Your task to perform on an android device: turn pop-ups on in chrome Image 0: 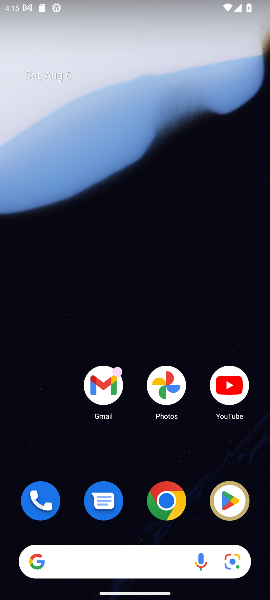
Step 0: click (174, 499)
Your task to perform on an android device: turn pop-ups on in chrome Image 1: 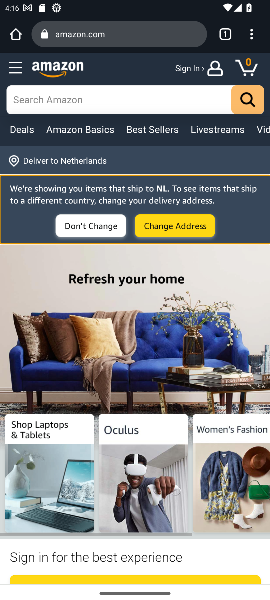
Step 1: click (256, 33)
Your task to perform on an android device: turn pop-ups on in chrome Image 2: 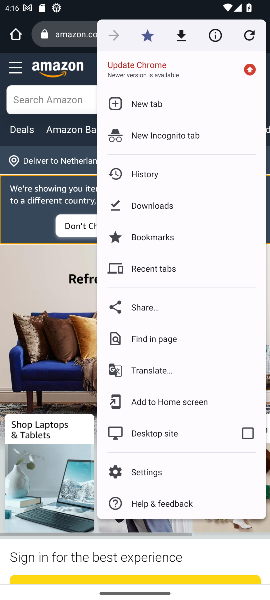
Step 2: click (138, 473)
Your task to perform on an android device: turn pop-ups on in chrome Image 3: 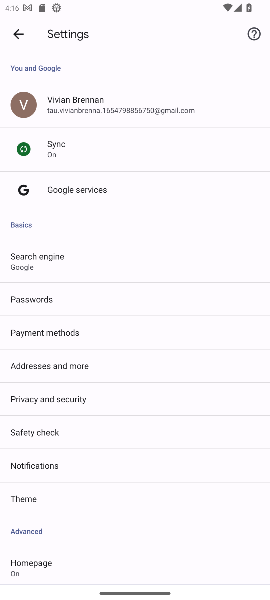
Step 3: drag from (194, 503) to (199, 2)
Your task to perform on an android device: turn pop-ups on in chrome Image 4: 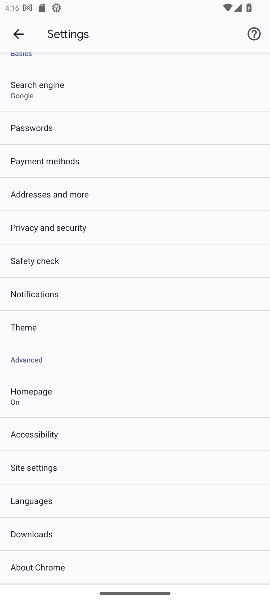
Step 4: click (53, 464)
Your task to perform on an android device: turn pop-ups on in chrome Image 5: 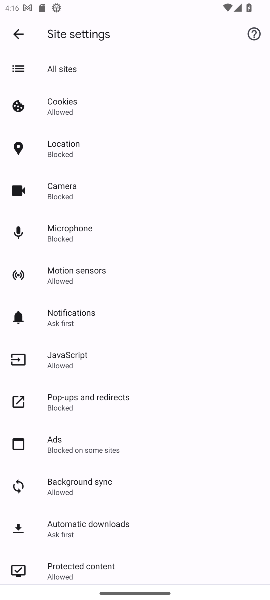
Step 5: click (89, 406)
Your task to perform on an android device: turn pop-ups on in chrome Image 6: 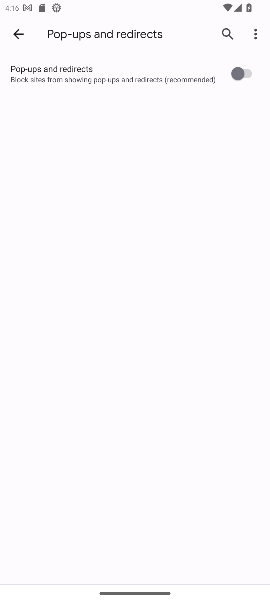
Step 6: click (240, 67)
Your task to perform on an android device: turn pop-ups on in chrome Image 7: 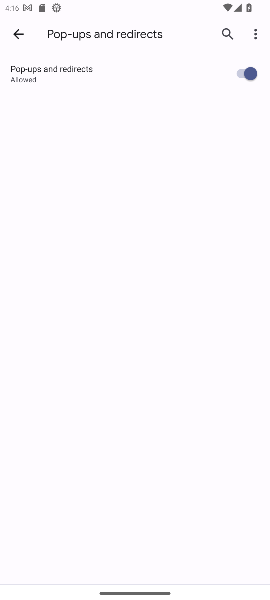
Step 7: task complete